Your task to perform on an android device: find which apps use the phone's location Image 0: 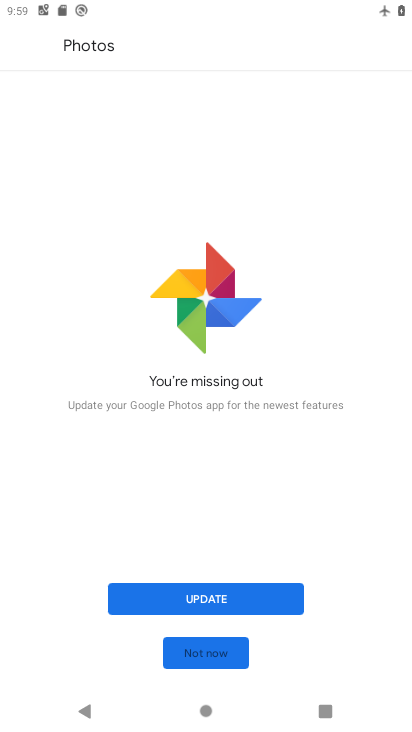
Step 0: press home button
Your task to perform on an android device: find which apps use the phone's location Image 1: 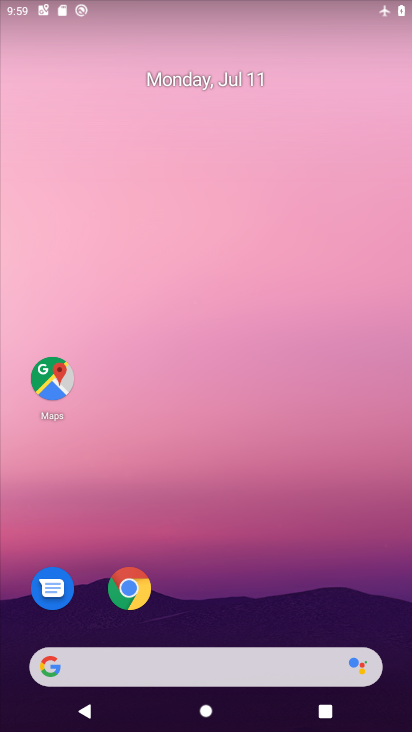
Step 1: drag from (235, 624) to (162, 284)
Your task to perform on an android device: find which apps use the phone's location Image 2: 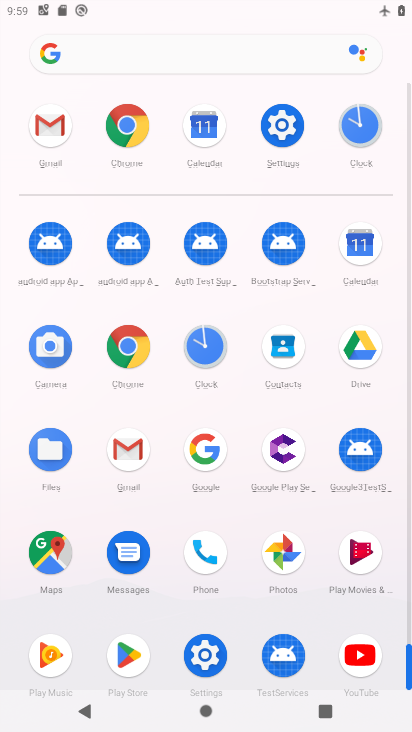
Step 2: click (272, 115)
Your task to perform on an android device: find which apps use the phone's location Image 3: 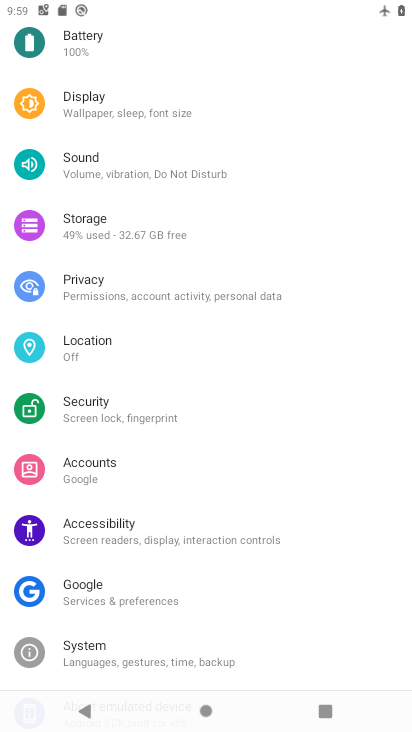
Step 3: click (121, 329)
Your task to perform on an android device: find which apps use the phone's location Image 4: 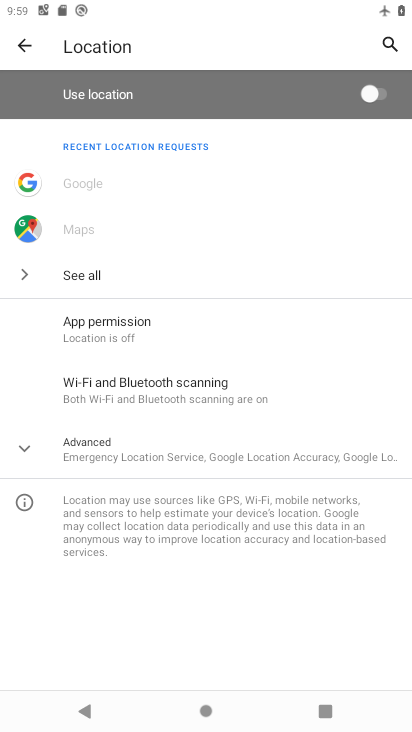
Step 4: task complete